Your task to perform on an android device: Go to Yahoo.com Image 0: 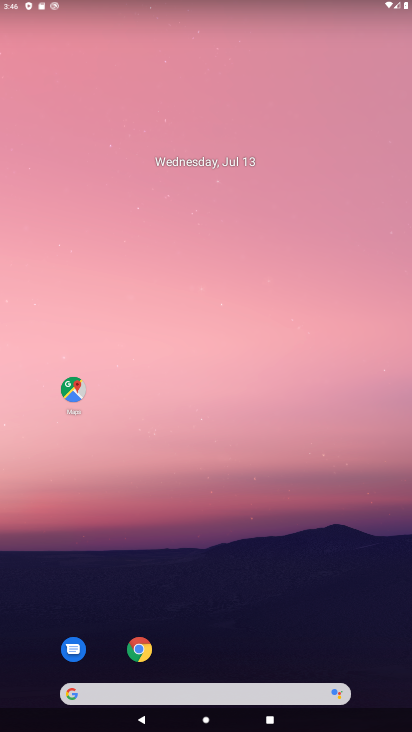
Step 0: click (141, 651)
Your task to perform on an android device: Go to Yahoo.com Image 1: 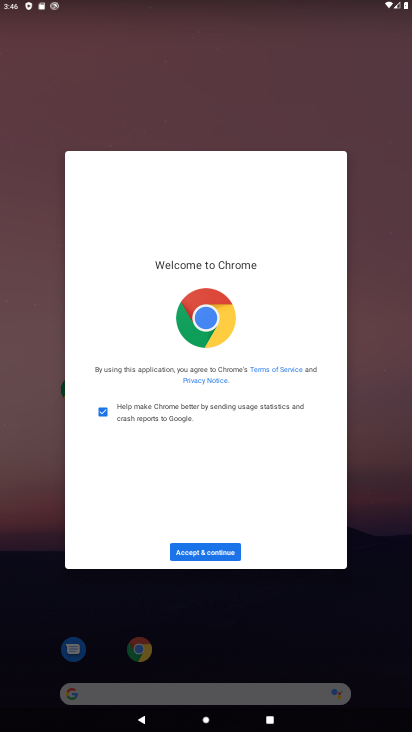
Step 1: click (222, 553)
Your task to perform on an android device: Go to Yahoo.com Image 2: 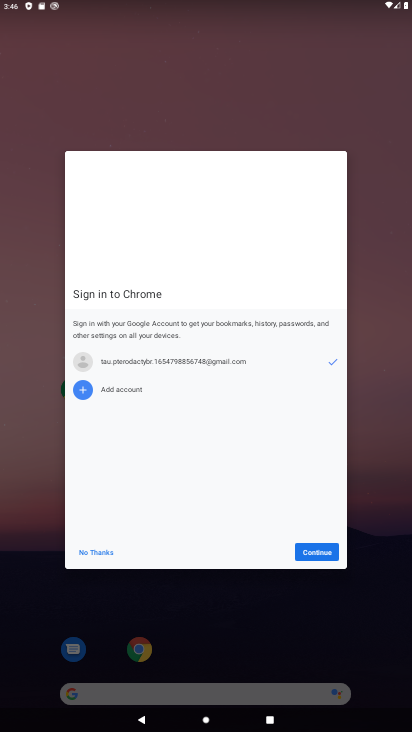
Step 2: click (323, 551)
Your task to perform on an android device: Go to Yahoo.com Image 3: 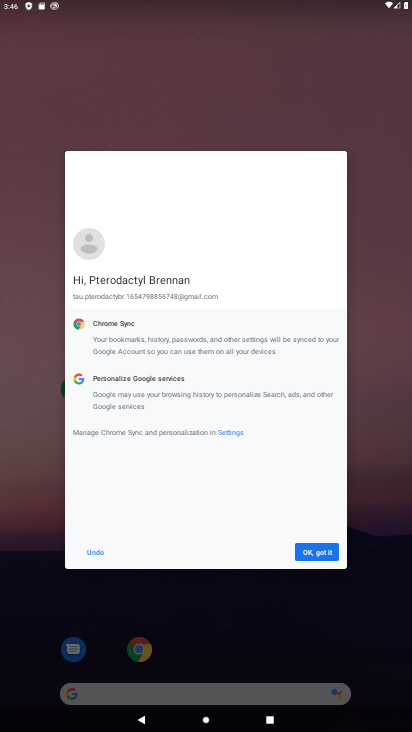
Step 3: click (304, 549)
Your task to perform on an android device: Go to Yahoo.com Image 4: 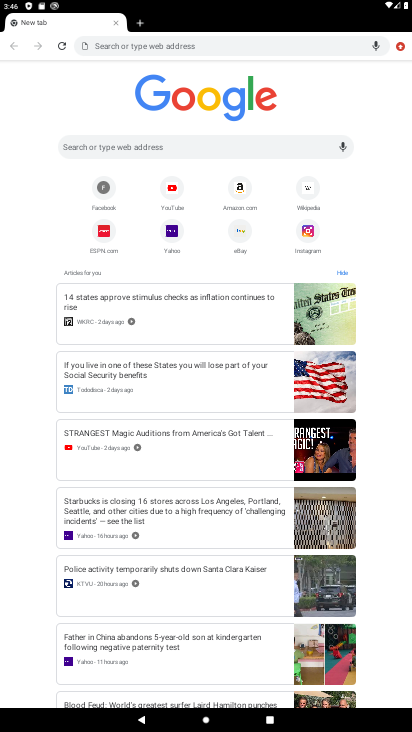
Step 4: click (171, 233)
Your task to perform on an android device: Go to Yahoo.com Image 5: 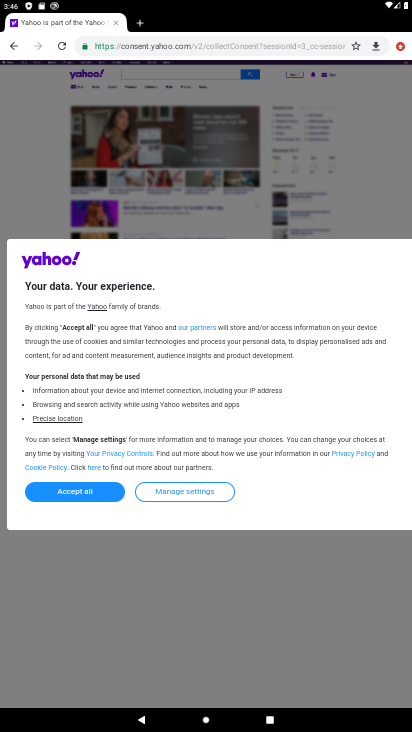
Step 5: task complete